Your task to perform on an android device: check google app version Image 0: 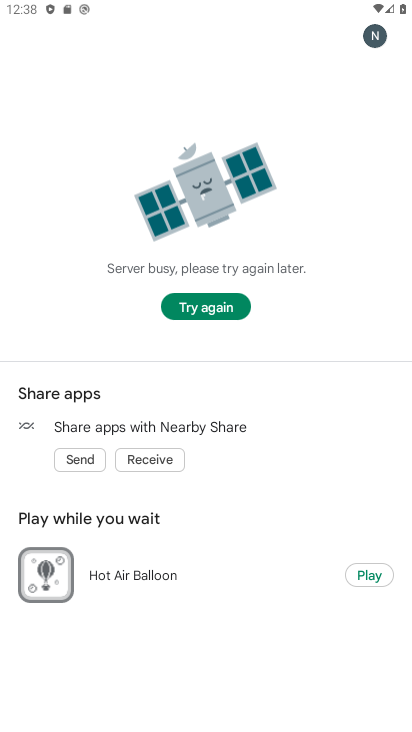
Step 0: press home button
Your task to perform on an android device: check google app version Image 1: 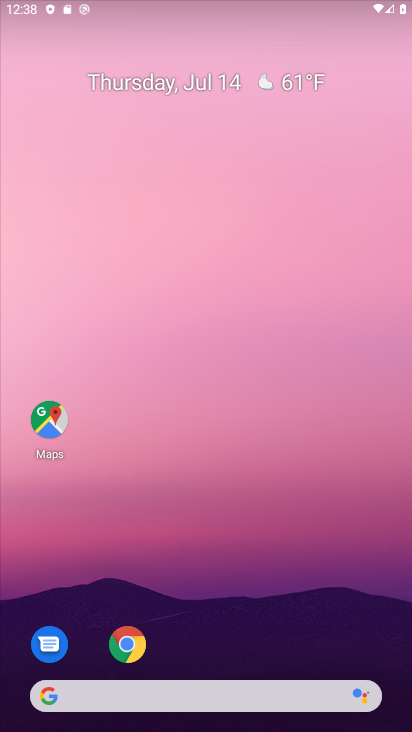
Step 1: drag from (332, 612) to (212, 132)
Your task to perform on an android device: check google app version Image 2: 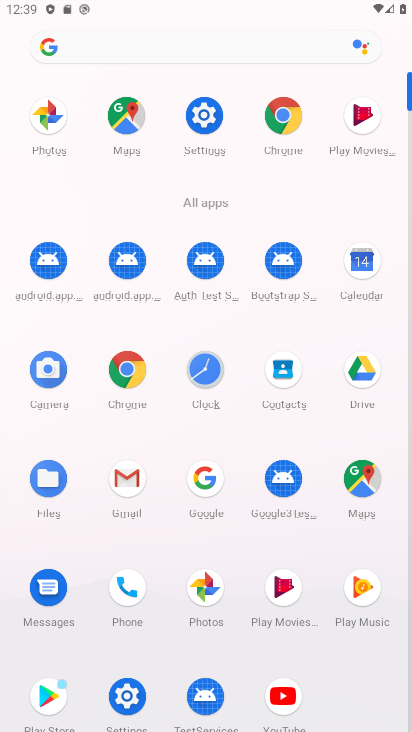
Step 2: click (204, 488)
Your task to perform on an android device: check google app version Image 3: 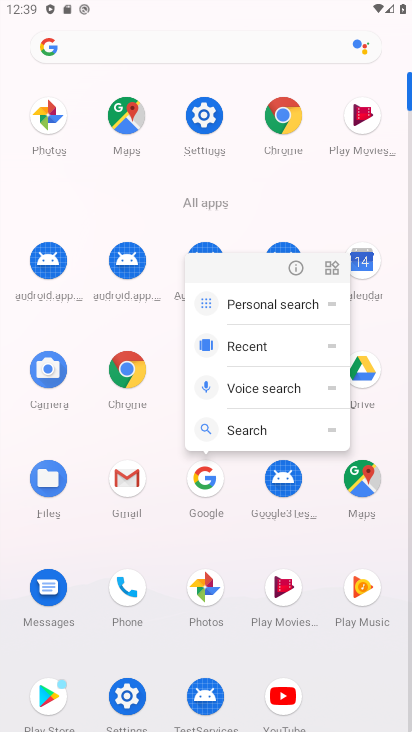
Step 3: click (293, 268)
Your task to perform on an android device: check google app version Image 4: 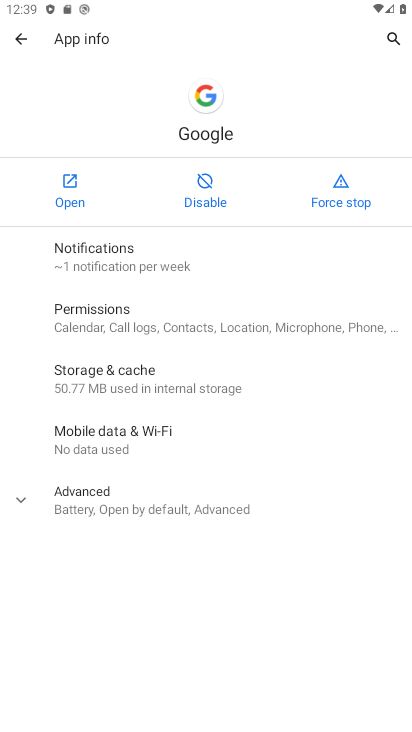
Step 4: click (196, 520)
Your task to perform on an android device: check google app version Image 5: 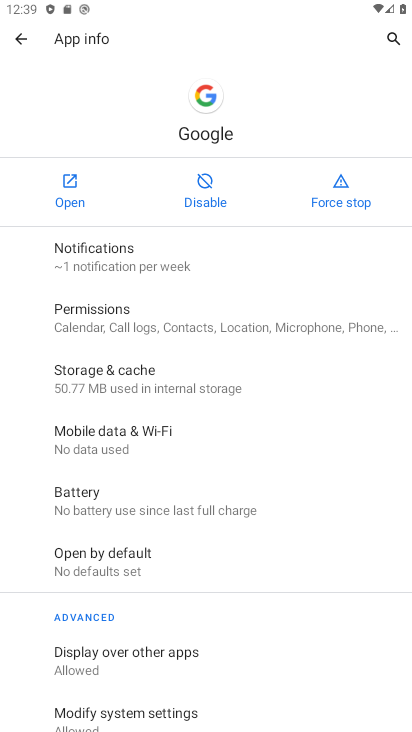
Step 5: task complete